Your task to perform on an android device: toggle airplane mode Image 0: 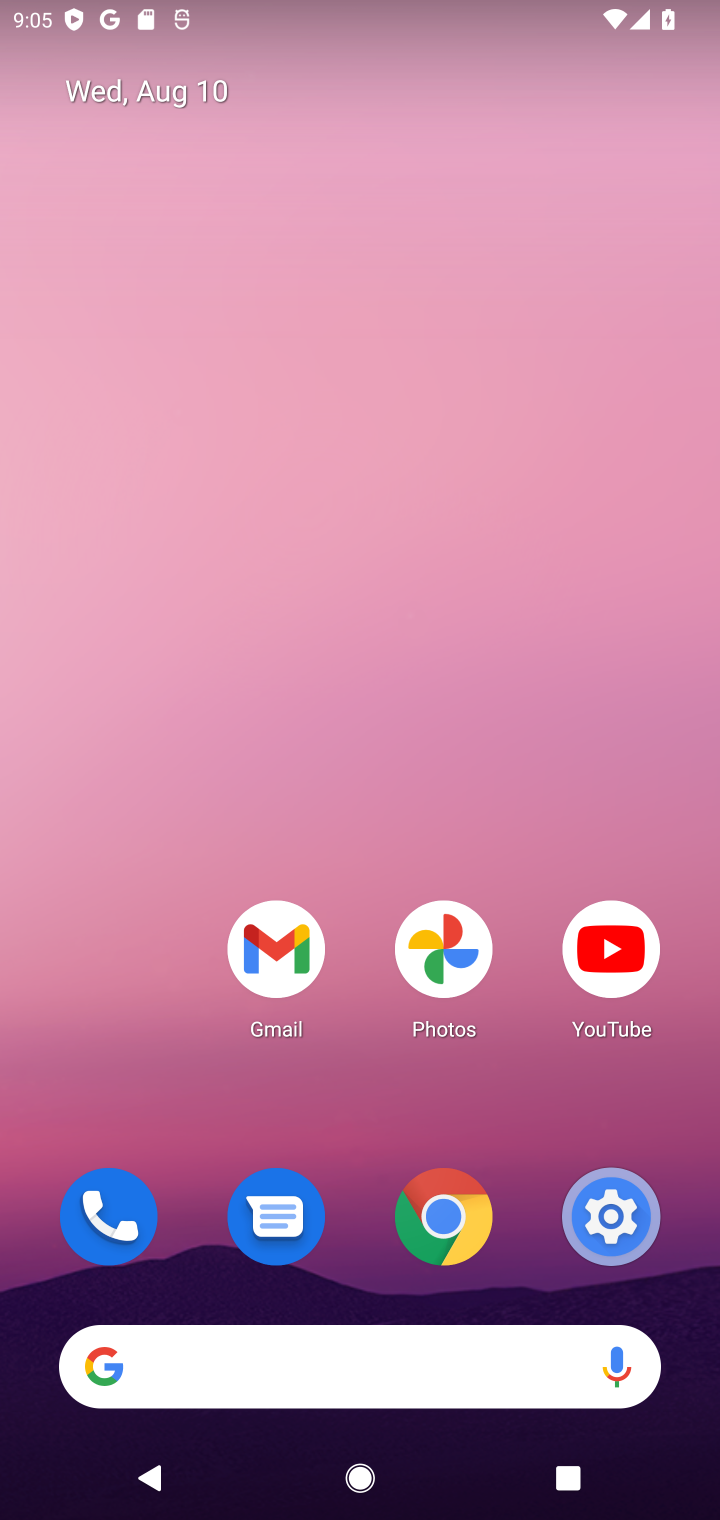
Step 0: drag from (16, 1027) to (483, 265)
Your task to perform on an android device: toggle airplane mode Image 1: 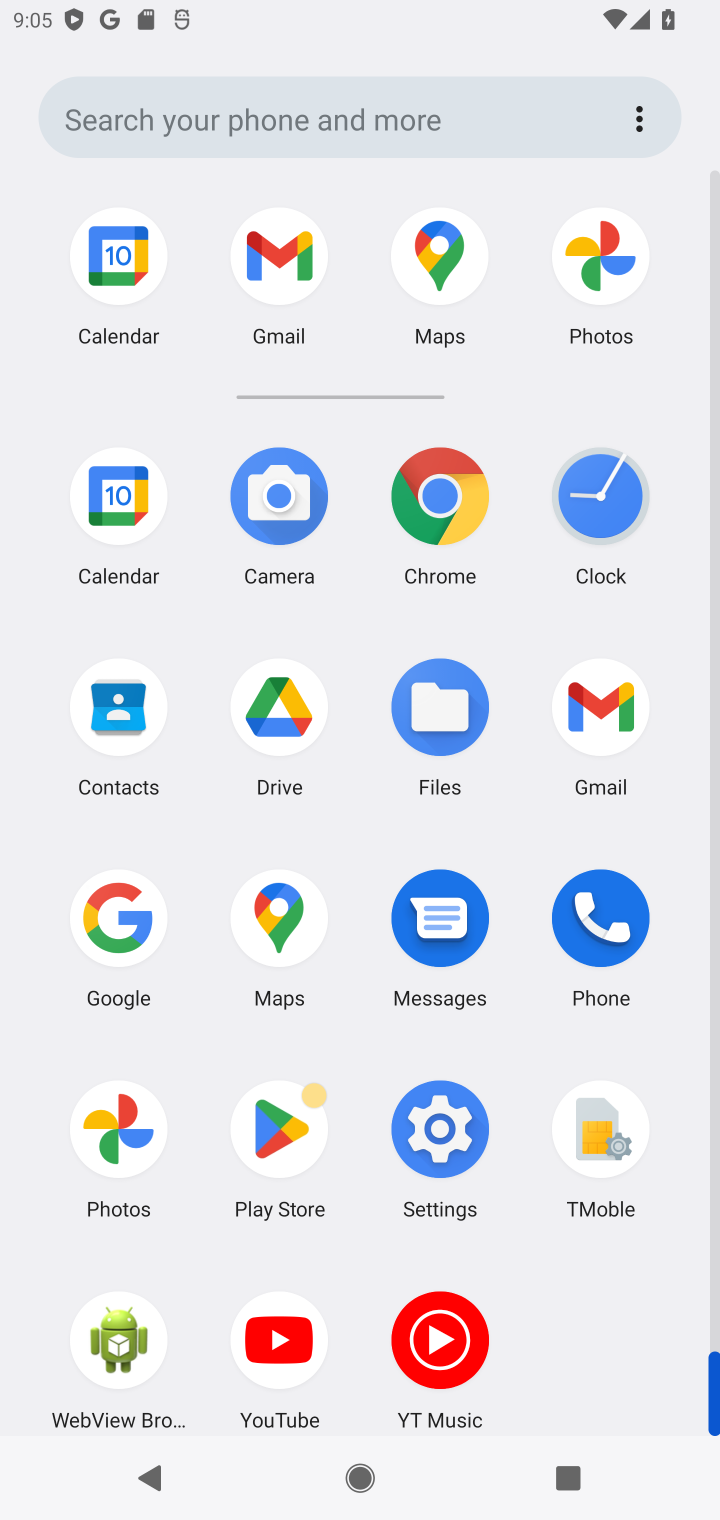
Step 1: click (423, 1124)
Your task to perform on an android device: toggle airplane mode Image 2: 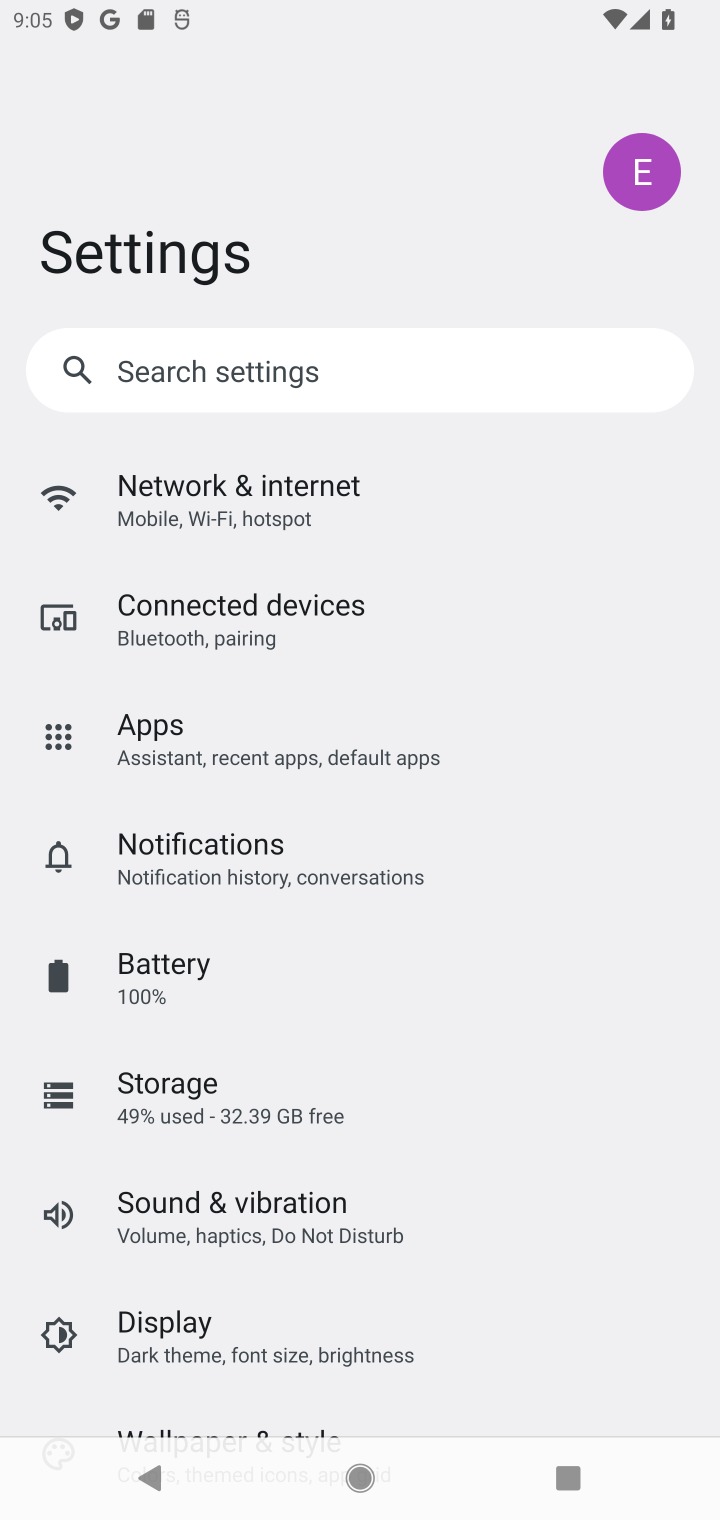
Step 2: click (339, 487)
Your task to perform on an android device: toggle airplane mode Image 3: 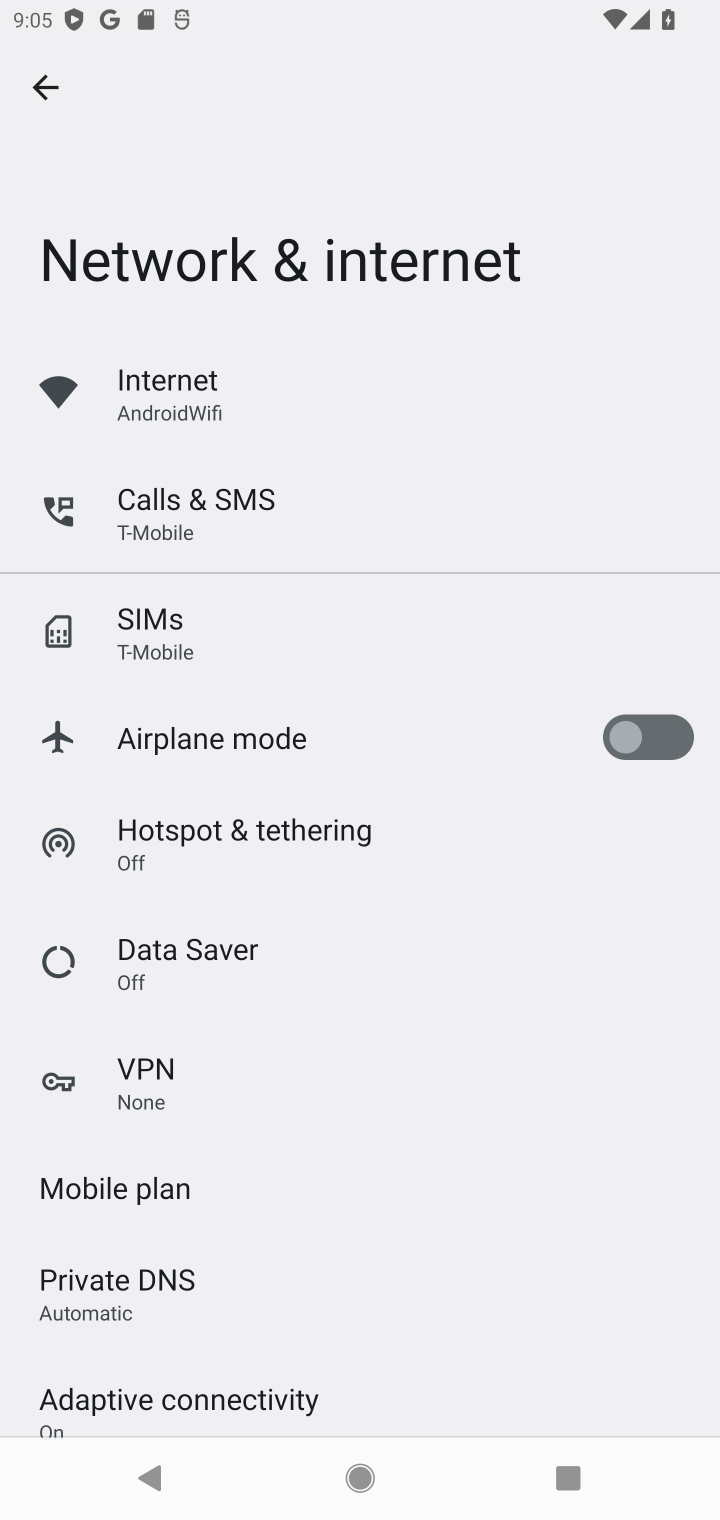
Step 3: click (623, 745)
Your task to perform on an android device: toggle airplane mode Image 4: 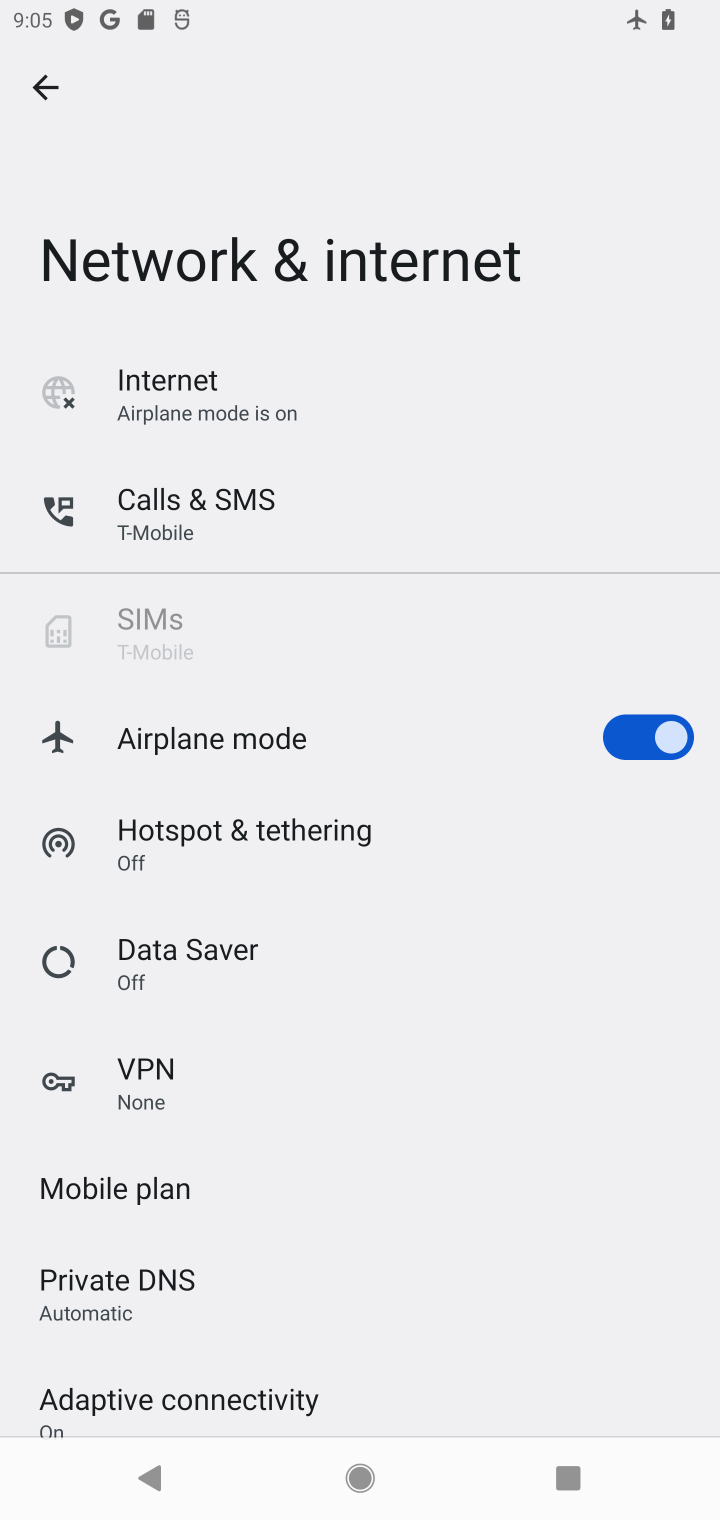
Step 4: task complete